Your task to perform on an android device: check data usage Image 0: 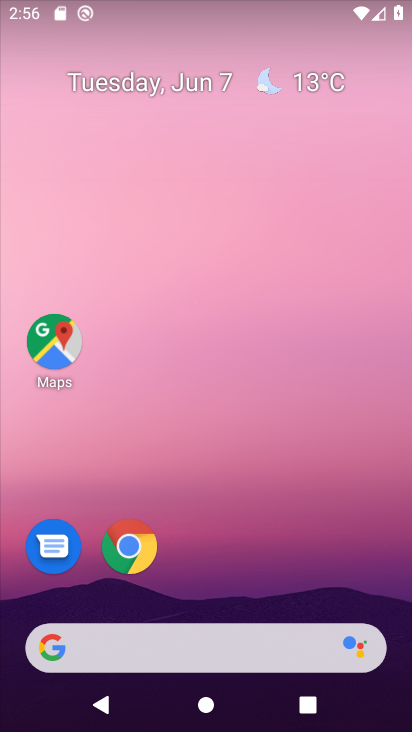
Step 0: drag from (327, 555) to (345, 98)
Your task to perform on an android device: check data usage Image 1: 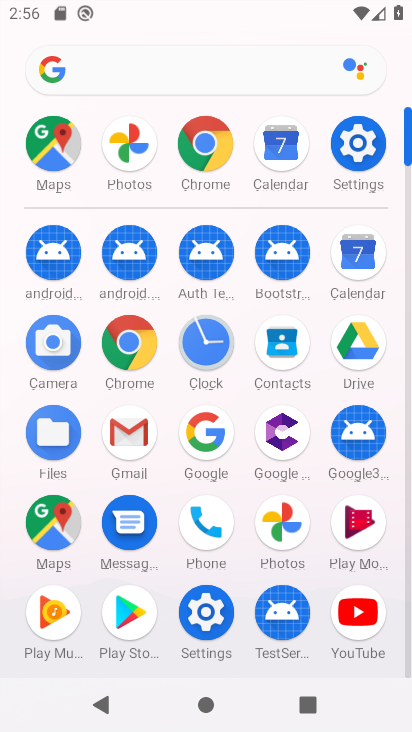
Step 1: click (360, 166)
Your task to perform on an android device: check data usage Image 2: 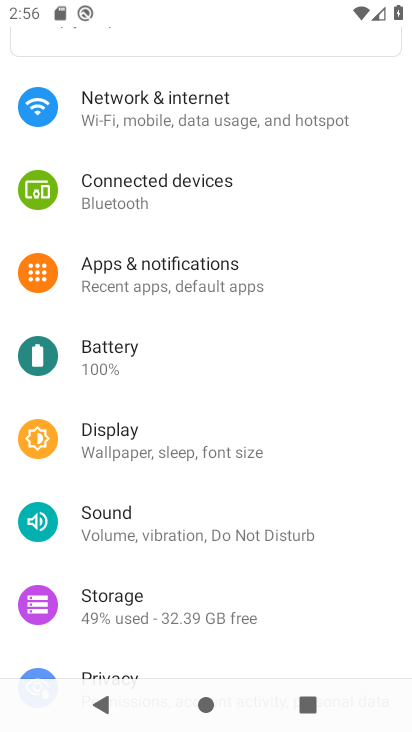
Step 2: drag from (373, 557) to (340, 322)
Your task to perform on an android device: check data usage Image 3: 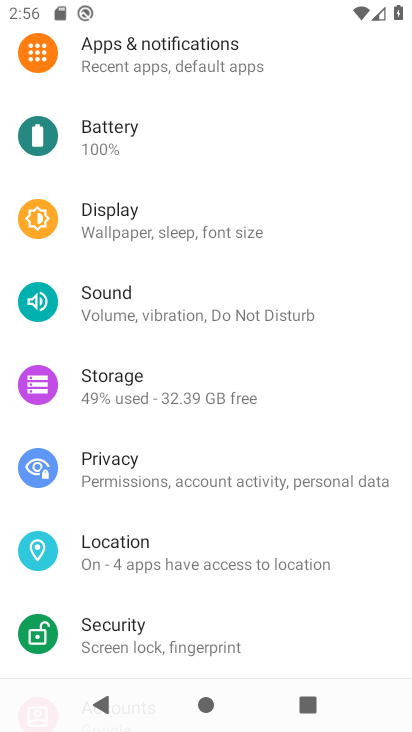
Step 3: drag from (319, 592) to (379, 331)
Your task to perform on an android device: check data usage Image 4: 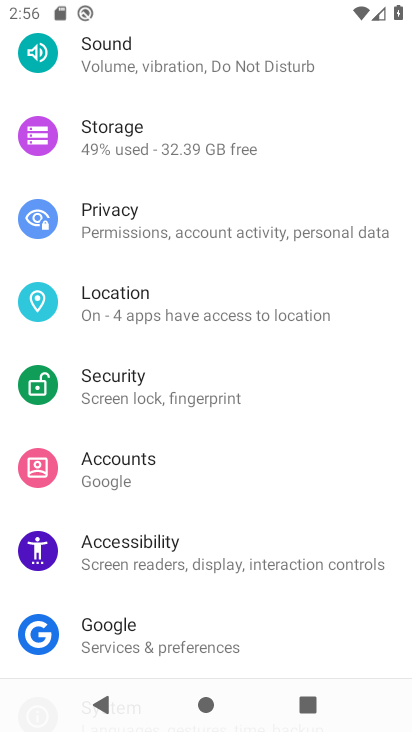
Step 4: drag from (337, 554) to (408, 579)
Your task to perform on an android device: check data usage Image 5: 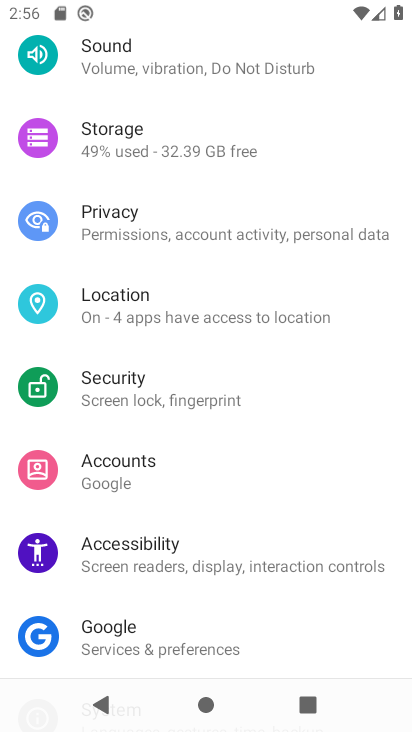
Step 5: drag from (312, 608) to (312, 315)
Your task to perform on an android device: check data usage Image 6: 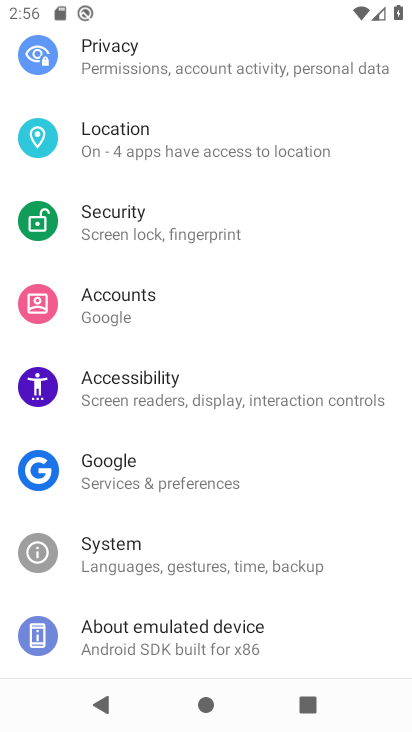
Step 6: drag from (310, 490) to (345, 103)
Your task to perform on an android device: check data usage Image 7: 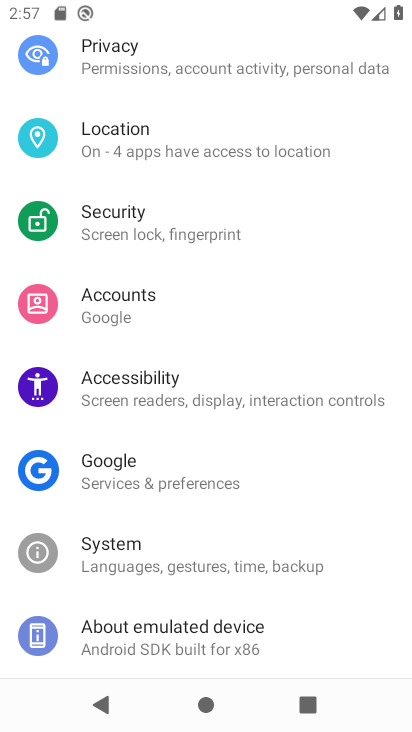
Step 7: drag from (344, 477) to (338, 275)
Your task to perform on an android device: check data usage Image 8: 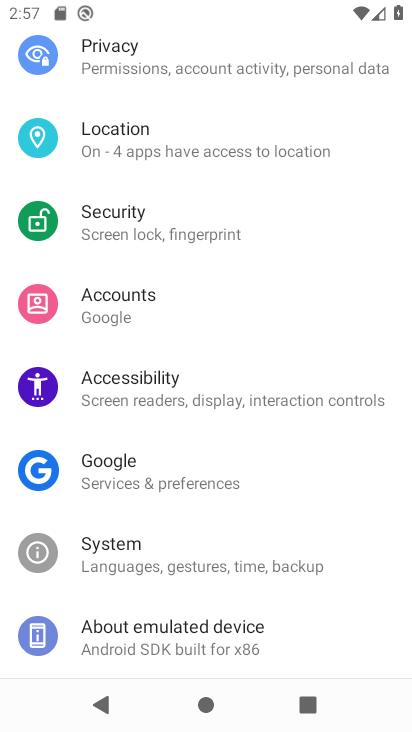
Step 8: drag from (319, 282) to (335, 527)
Your task to perform on an android device: check data usage Image 9: 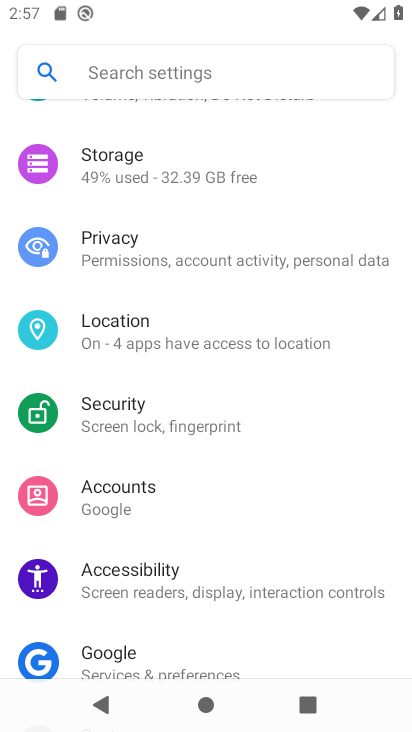
Step 9: drag from (309, 342) to (289, 494)
Your task to perform on an android device: check data usage Image 10: 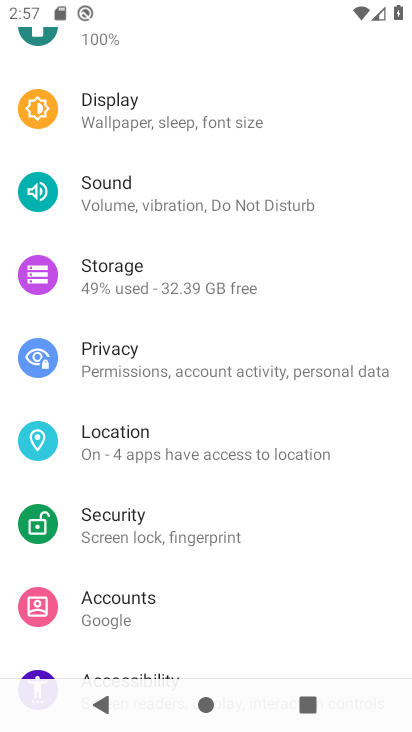
Step 10: drag from (294, 238) to (340, 439)
Your task to perform on an android device: check data usage Image 11: 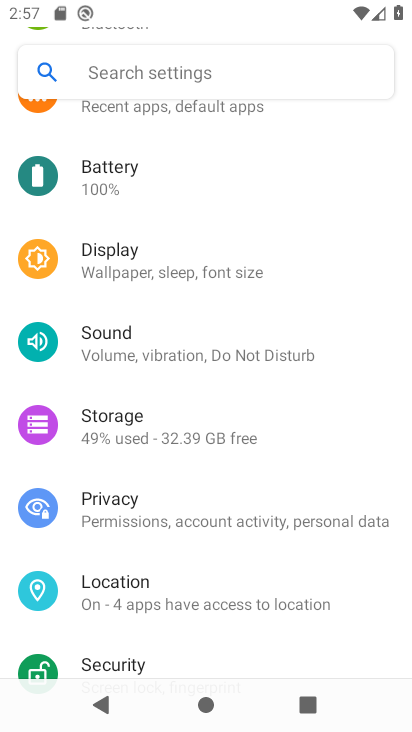
Step 11: drag from (326, 234) to (411, 661)
Your task to perform on an android device: check data usage Image 12: 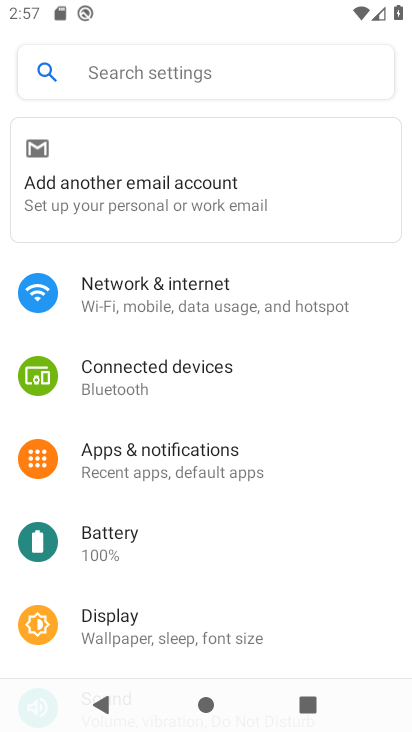
Step 12: click (236, 305)
Your task to perform on an android device: check data usage Image 13: 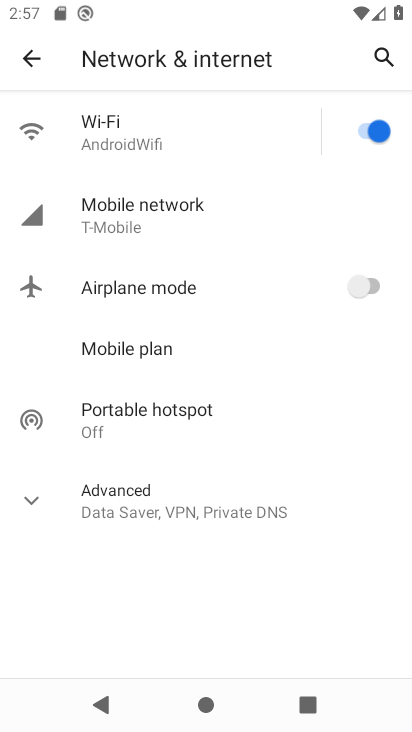
Step 13: drag from (296, 601) to (289, 449)
Your task to perform on an android device: check data usage Image 14: 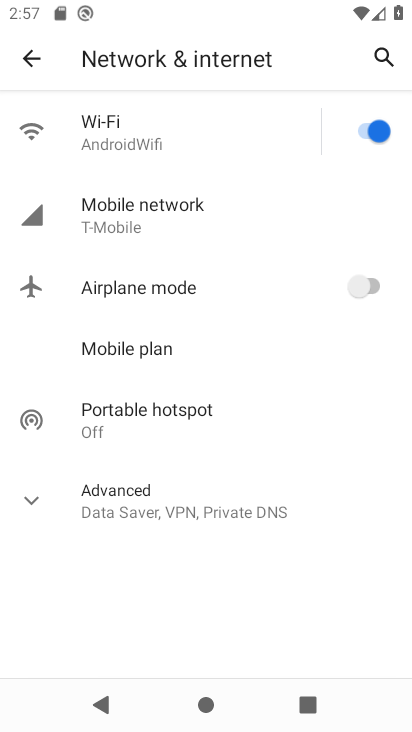
Step 14: click (126, 214)
Your task to perform on an android device: check data usage Image 15: 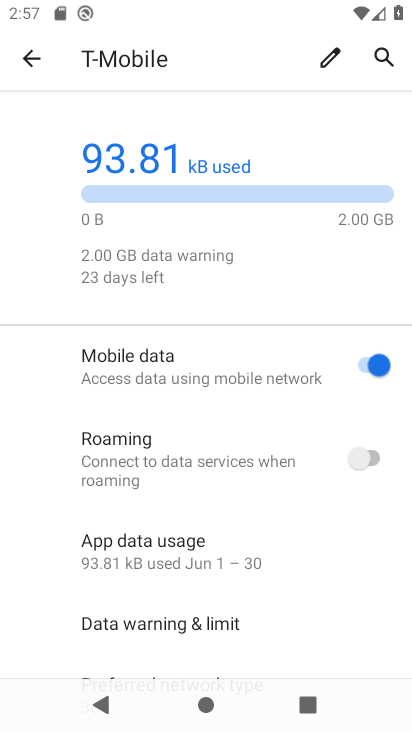
Step 15: click (175, 557)
Your task to perform on an android device: check data usage Image 16: 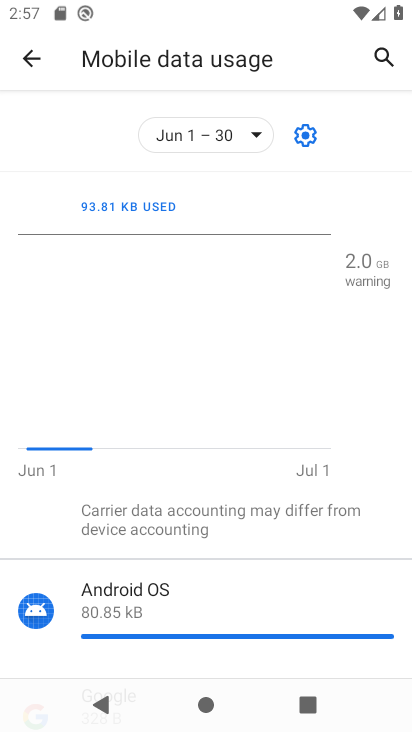
Step 16: task complete